Your task to perform on an android device: Search for seafood restaurants on Google Maps Image 0: 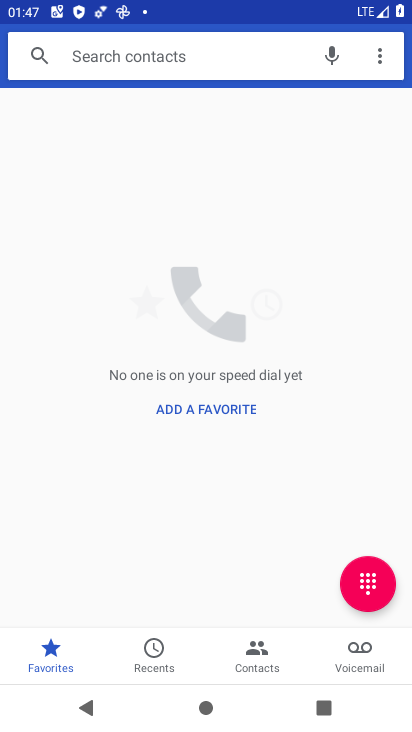
Step 0: press home button
Your task to perform on an android device: Search for seafood restaurants on Google Maps Image 1: 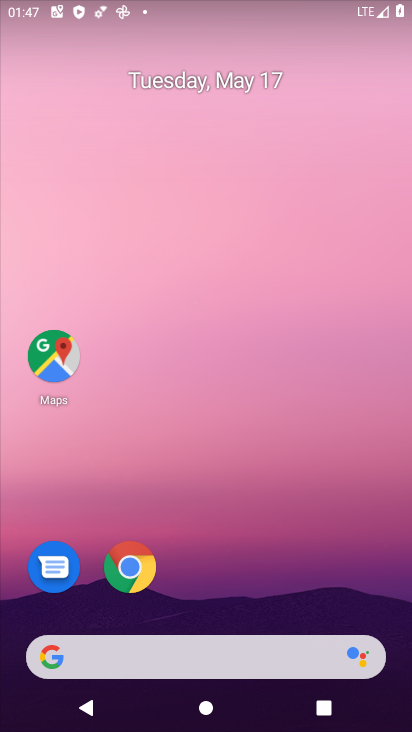
Step 1: click (54, 355)
Your task to perform on an android device: Search for seafood restaurants on Google Maps Image 2: 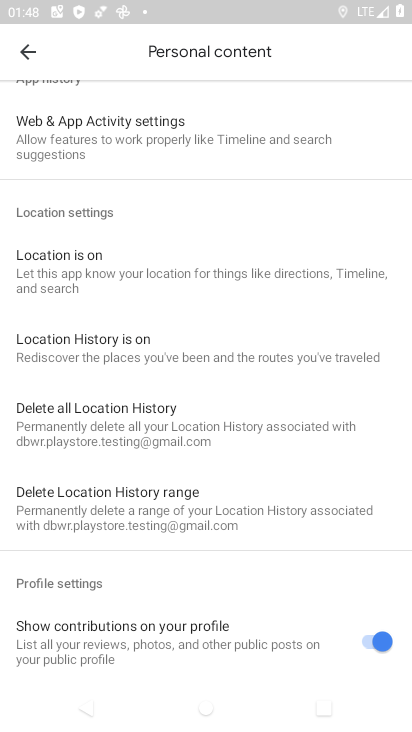
Step 2: press back button
Your task to perform on an android device: Search for seafood restaurants on Google Maps Image 3: 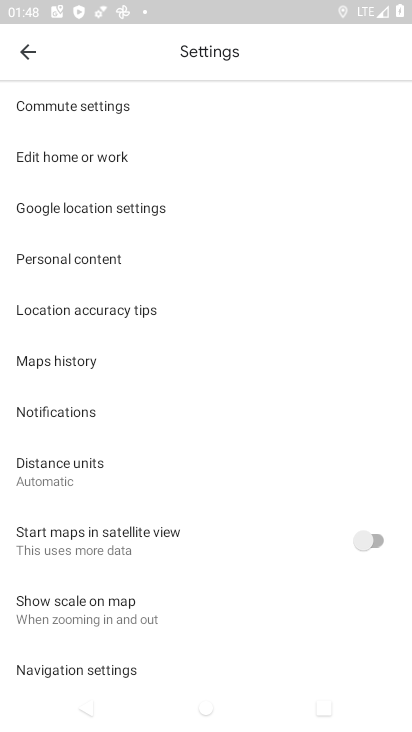
Step 3: press back button
Your task to perform on an android device: Search for seafood restaurants on Google Maps Image 4: 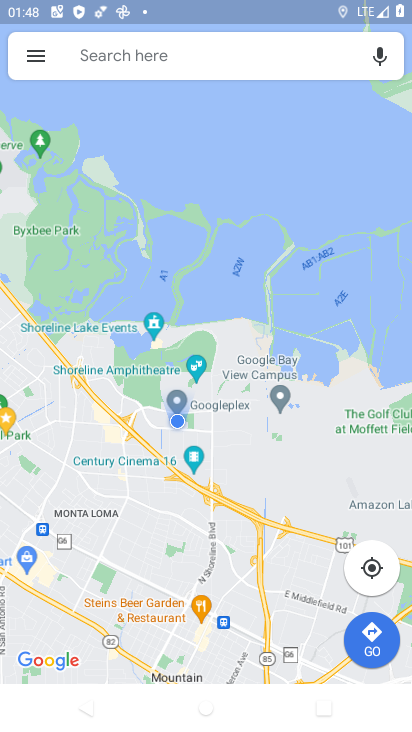
Step 4: click (150, 52)
Your task to perform on an android device: Search for seafood restaurants on Google Maps Image 5: 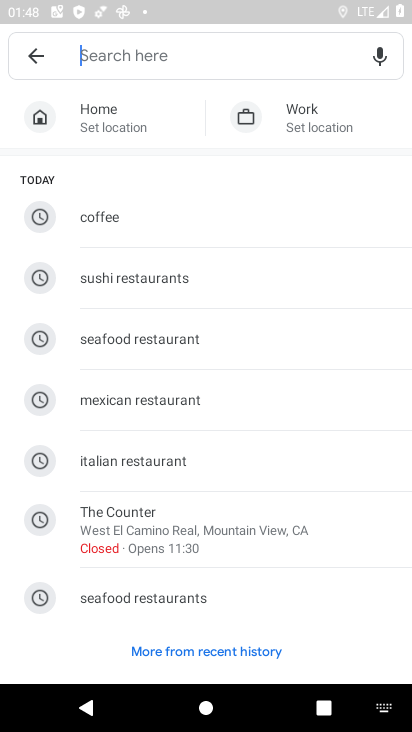
Step 5: type "seafood restaurants"
Your task to perform on an android device: Search for seafood restaurants on Google Maps Image 6: 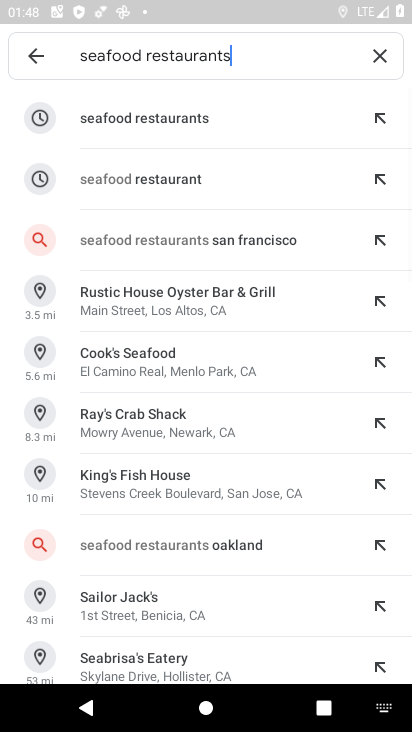
Step 6: click (139, 112)
Your task to perform on an android device: Search for seafood restaurants on Google Maps Image 7: 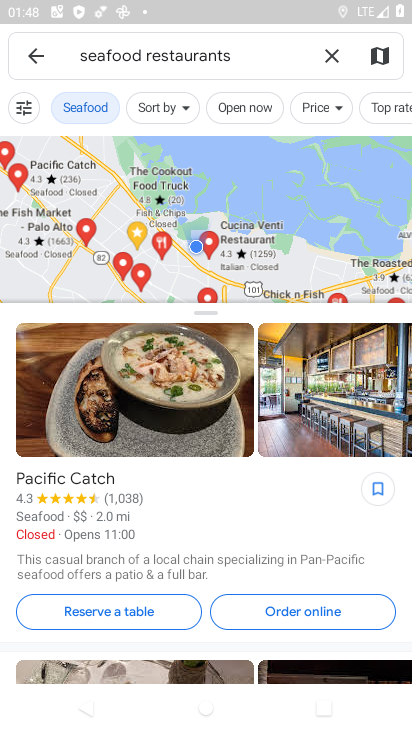
Step 7: task complete